Your task to perform on an android device: check data usage Image 0: 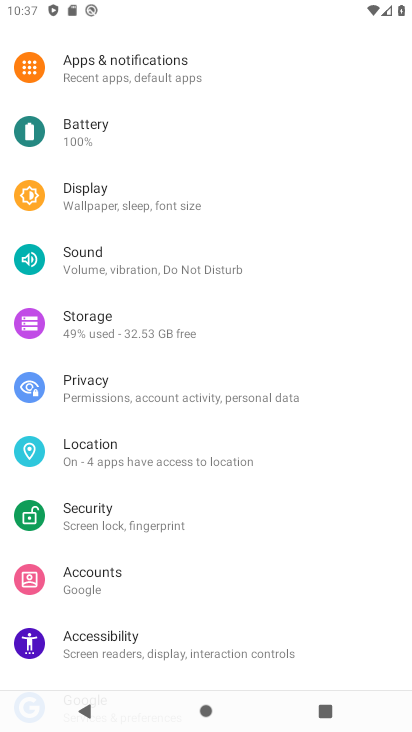
Step 0: drag from (270, 180) to (268, 563)
Your task to perform on an android device: check data usage Image 1: 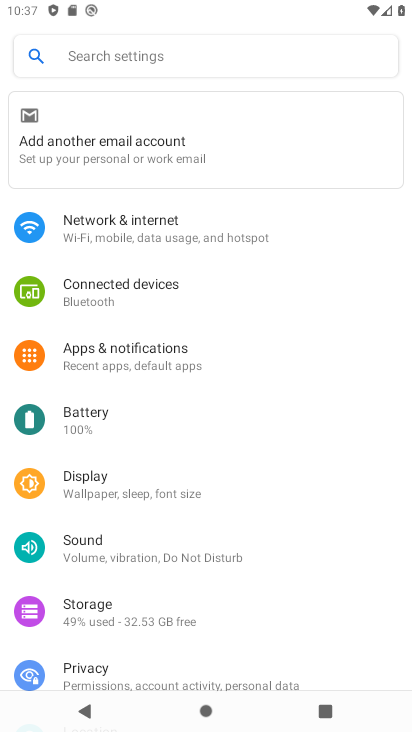
Step 1: click (119, 227)
Your task to perform on an android device: check data usage Image 2: 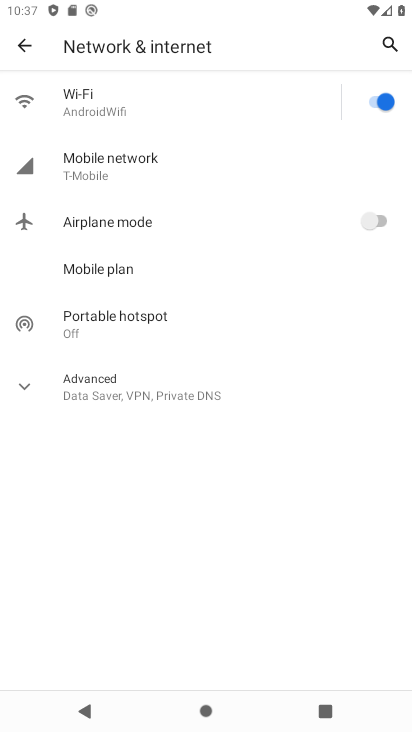
Step 2: click (116, 161)
Your task to perform on an android device: check data usage Image 3: 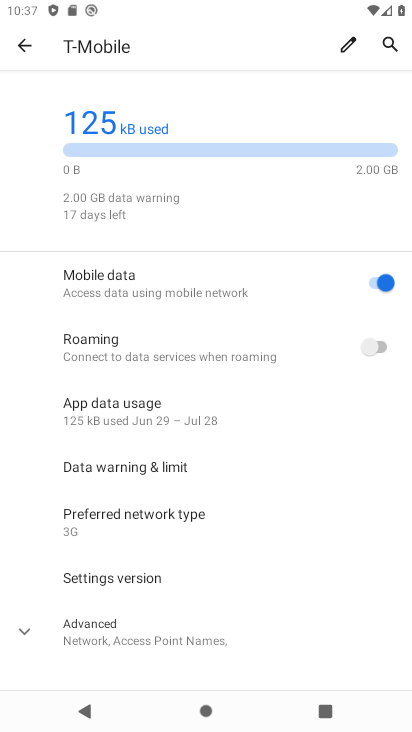
Step 3: task complete